Your task to perform on an android device: Open display settings Image 0: 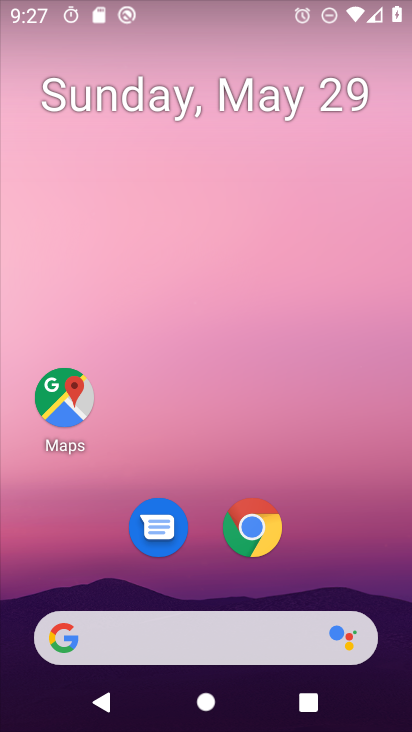
Step 0: drag from (406, 633) to (339, 108)
Your task to perform on an android device: Open display settings Image 1: 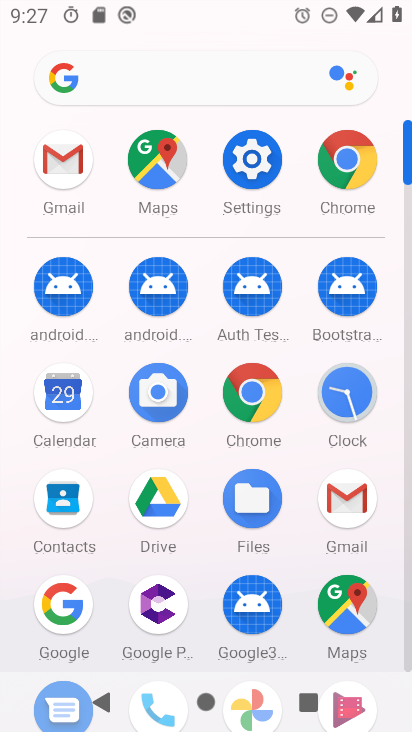
Step 1: click (264, 177)
Your task to perform on an android device: Open display settings Image 2: 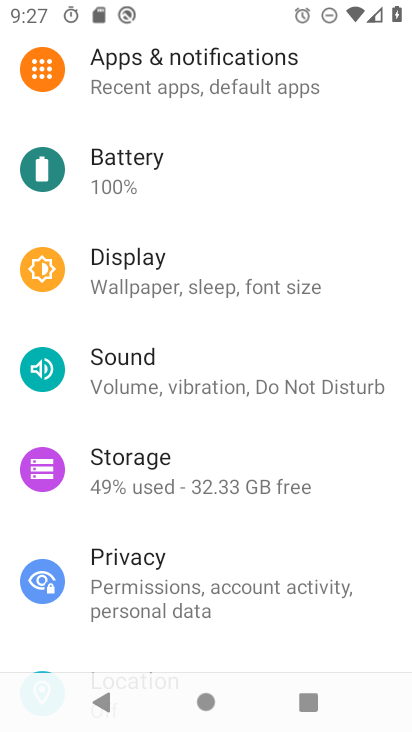
Step 2: click (210, 256)
Your task to perform on an android device: Open display settings Image 3: 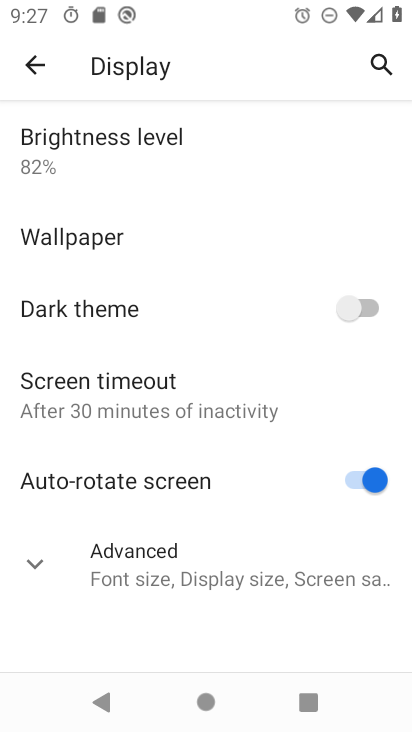
Step 3: task complete